Your task to perform on an android device: turn on wifi Image 0: 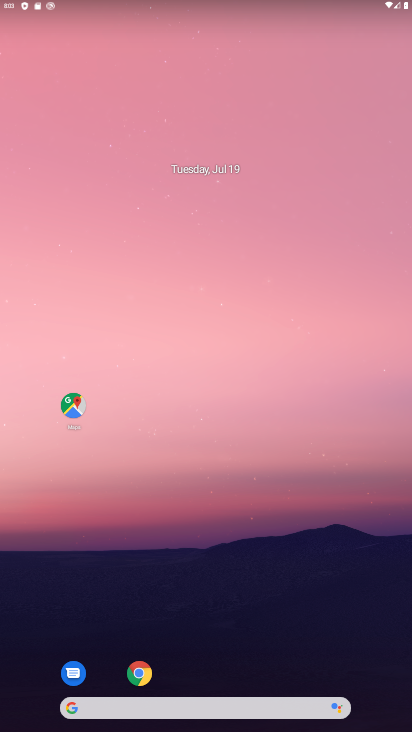
Step 0: click (225, 213)
Your task to perform on an android device: turn on wifi Image 1: 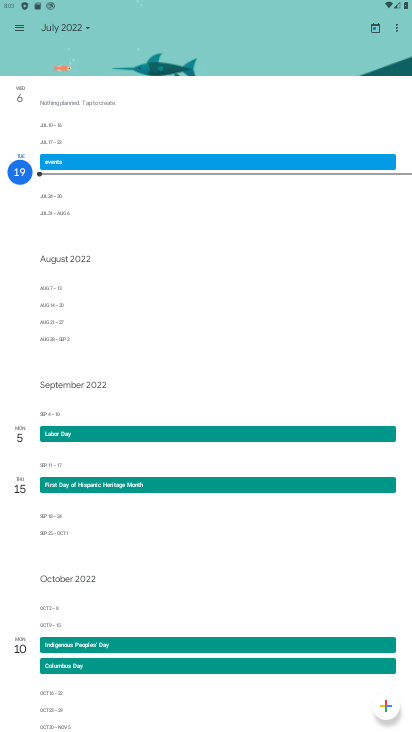
Step 1: press home button
Your task to perform on an android device: turn on wifi Image 2: 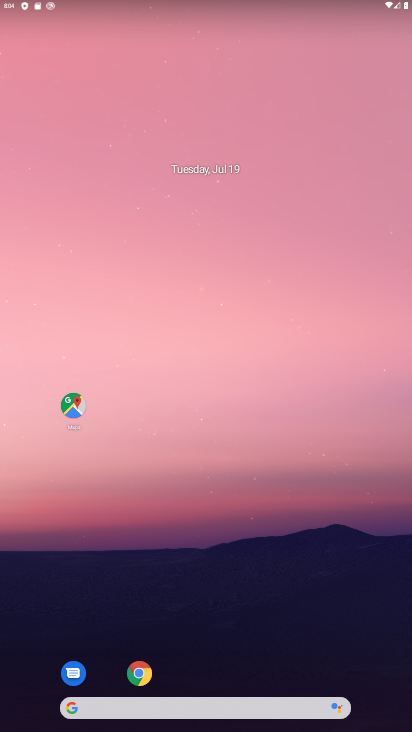
Step 2: drag from (187, 624) to (262, 133)
Your task to perform on an android device: turn on wifi Image 3: 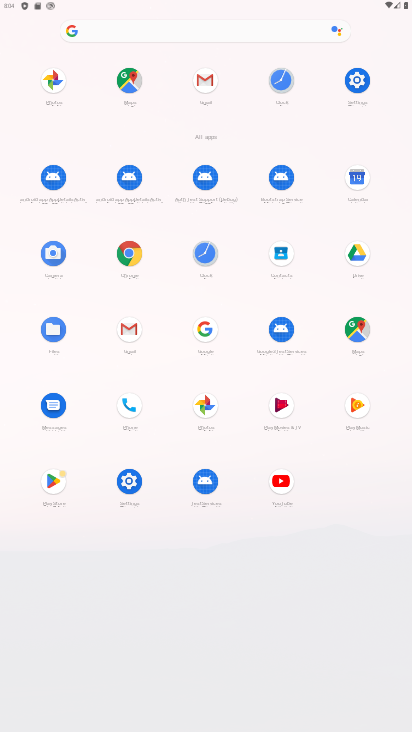
Step 3: drag from (234, 519) to (230, 84)
Your task to perform on an android device: turn on wifi Image 4: 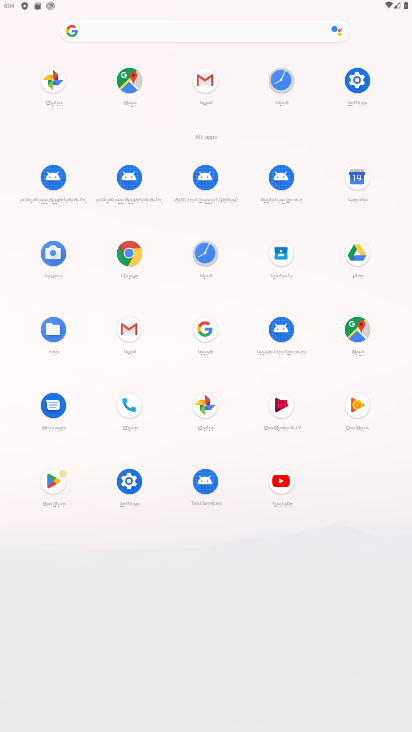
Step 4: click (359, 78)
Your task to perform on an android device: turn on wifi Image 5: 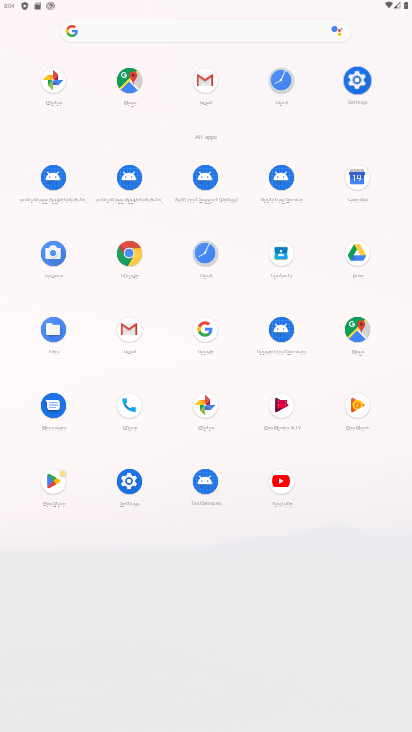
Step 5: click (359, 78)
Your task to perform on an android device: turn on wifi Image 6: 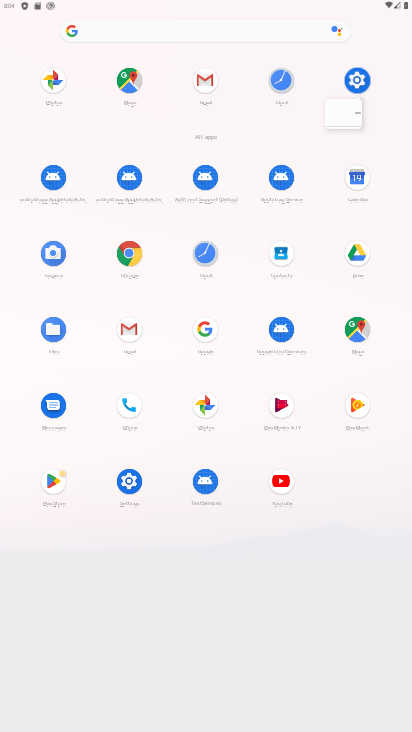
Step 6: click (359, 78)
Your task to perform on an android device: turn on wifi Image 7: 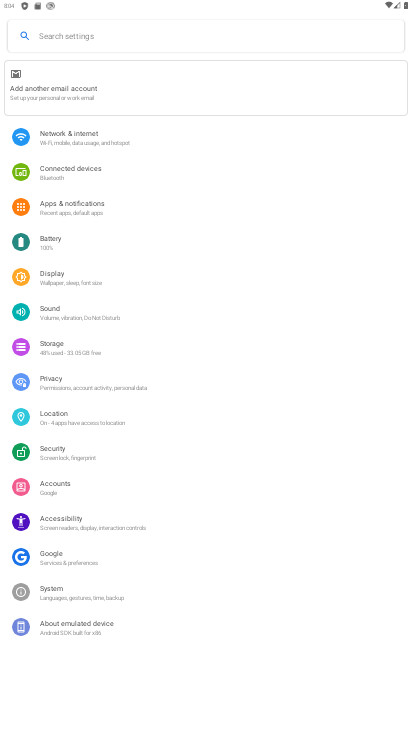
Step 7: click (66, 135)
Your task to perform on an android device: turn on wifi Image 8: 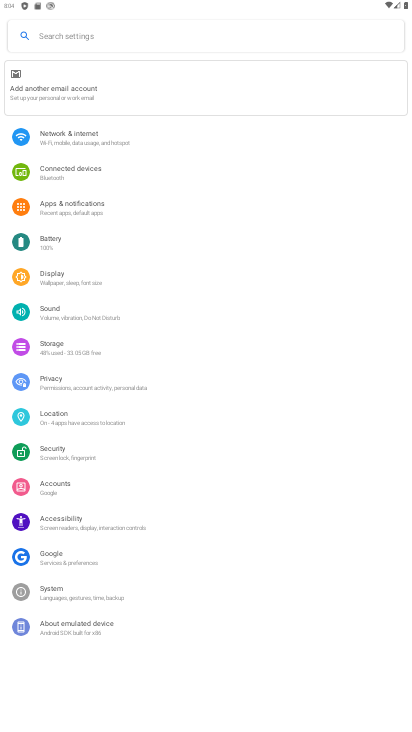
Step 8: click (72, 139)
Your task to perform on an android device: turn on wifi Image 9: 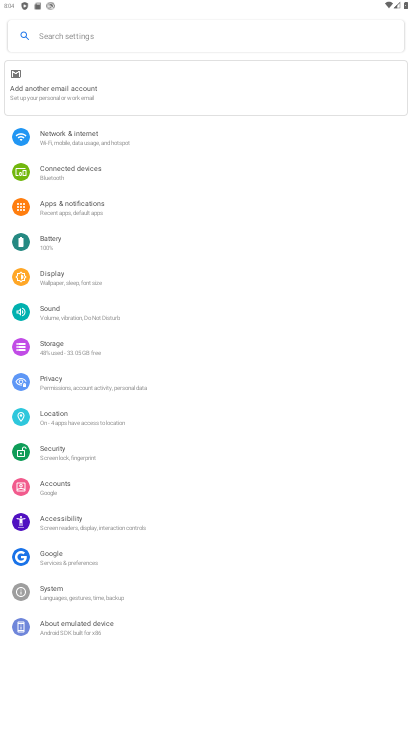
Step 9: click (74, 140)
Your task to perform on an android device: turn on wifi Image 10: 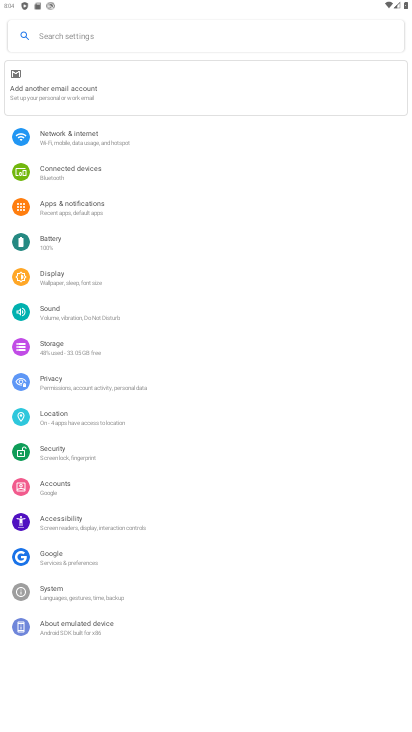
Step 10: click (75, 141)
Your task to perform on an android device: turn on wifi Image 11: 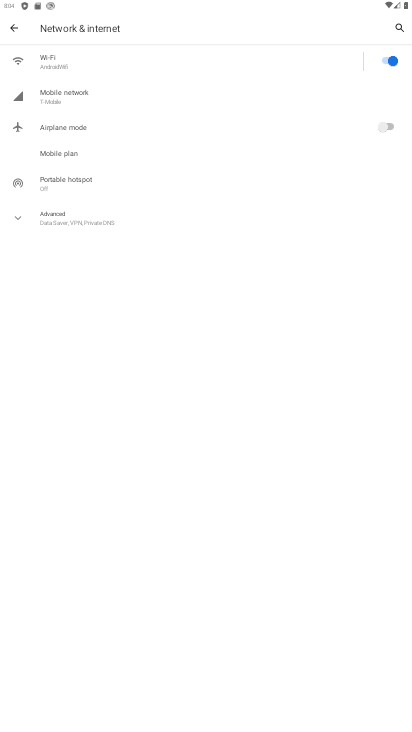
Step 11: click (75, 144)
Your task to perform on an android device: turn on wifi Image 12: 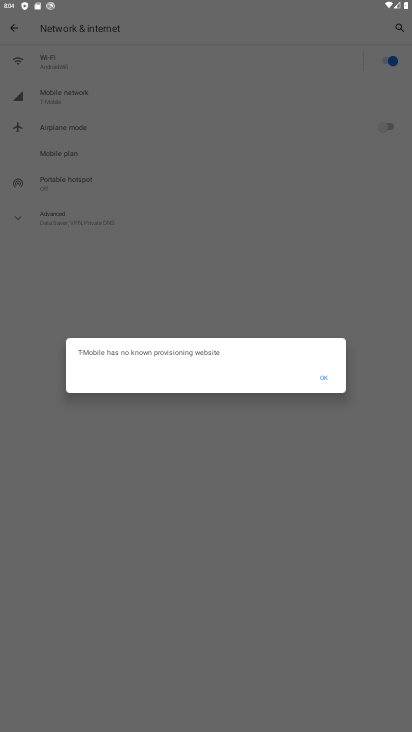
Step 12: click (322, 377)
Your task to perform on an android device: turn on wifi Image 13: 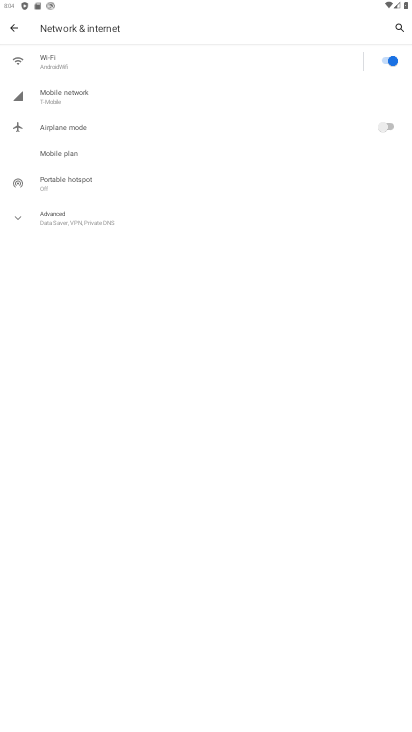
Step 13: task complete